Your task to perform on an android device: uninstall "Spotify: Music and Podcasts" Image 0: 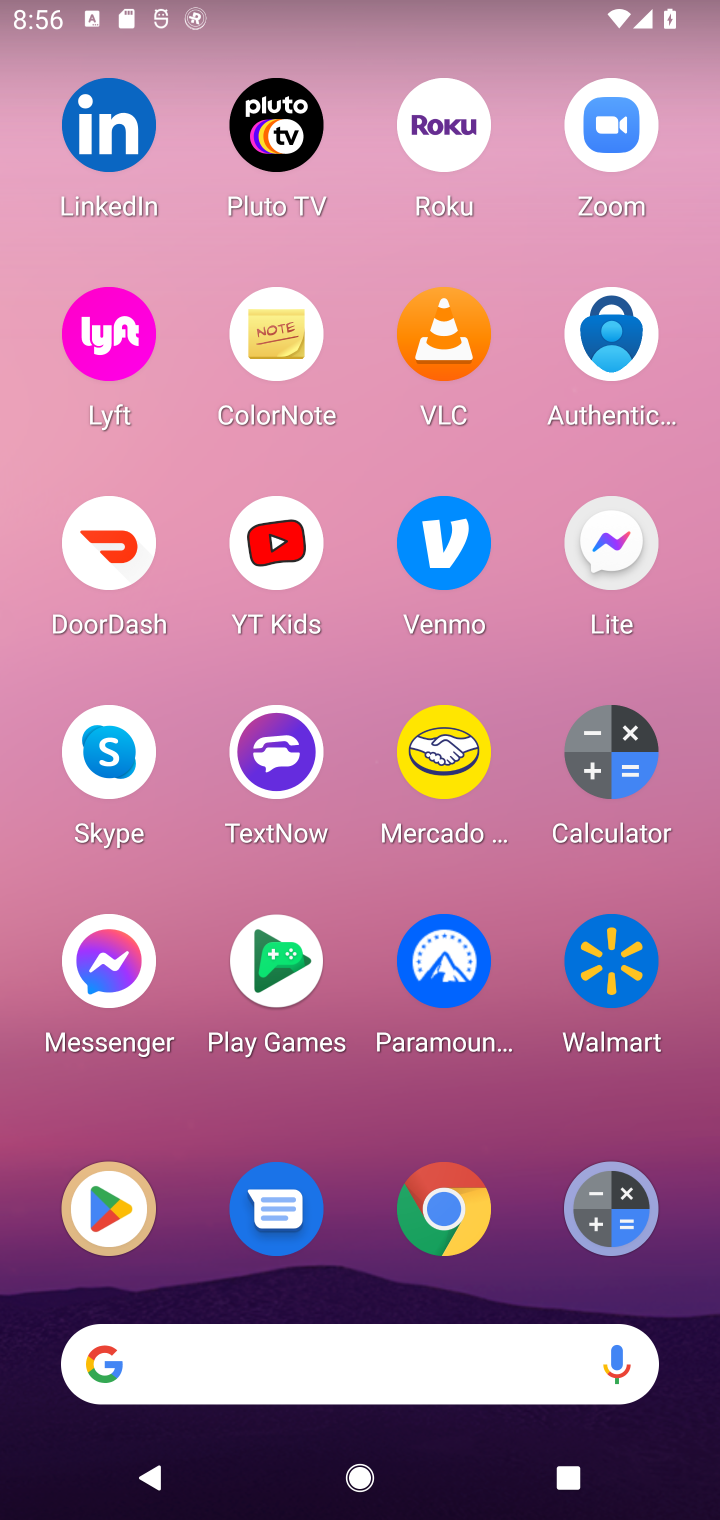
Step 0: press home button
Your task to perform on an android device: uninstall "Spotify: Music and Podcasts" Image 1: 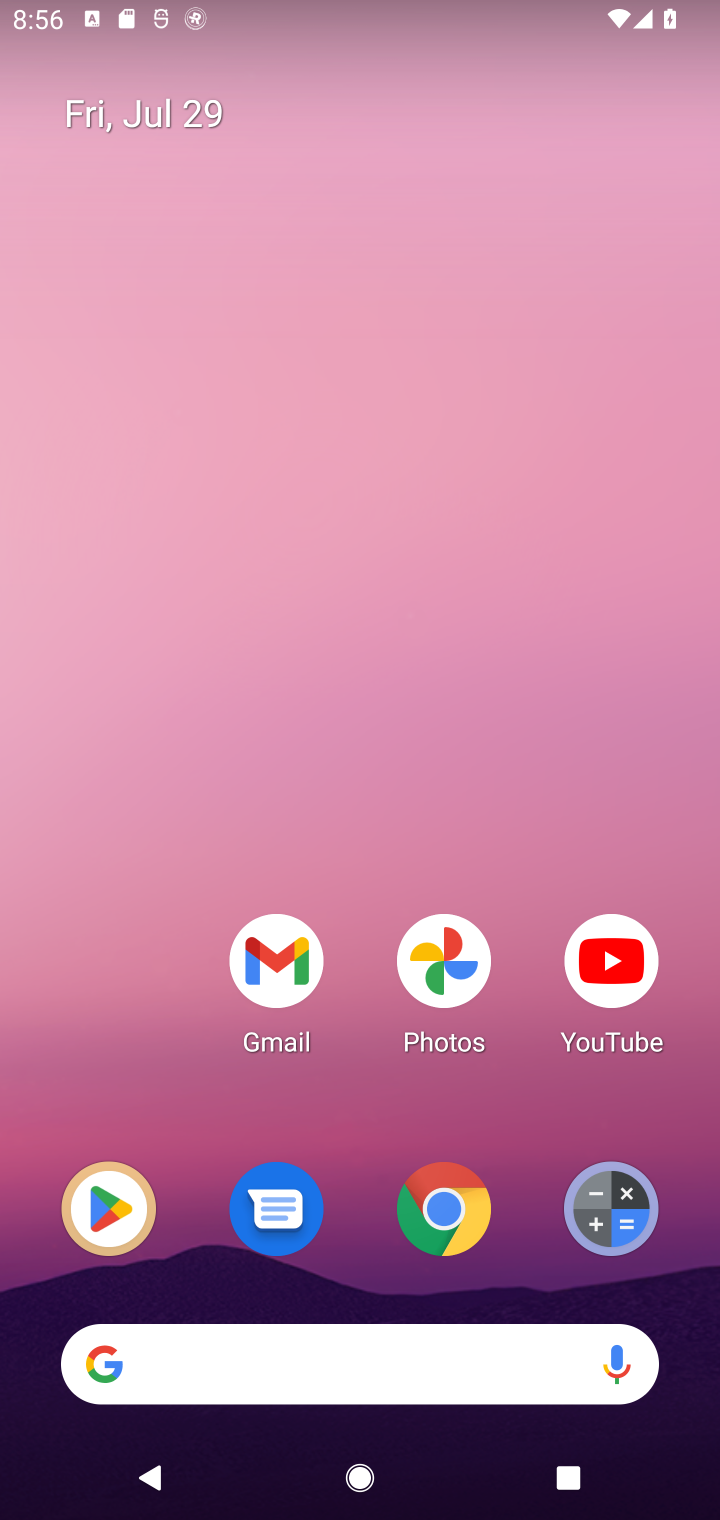
Step 1: drag from (598, 842) to (56, 797)
Your task to perform on an android device: uninstall "Spotify: Music and Podcasts" Image 2: 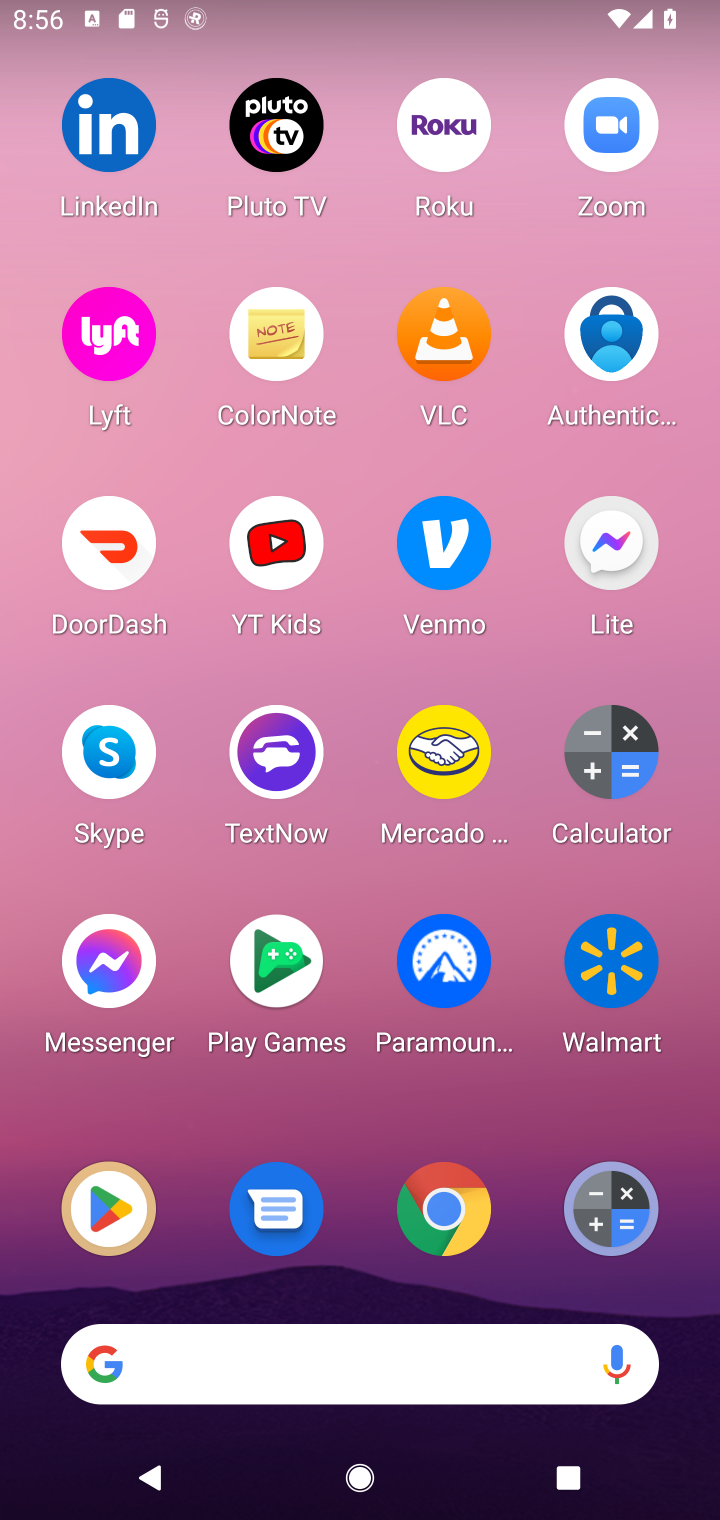
Step 2: drag from (662, 966) to (684, 7)
Your task to perform on an android device: uninstall "Spotify: Music and Podcasts" Image 3: 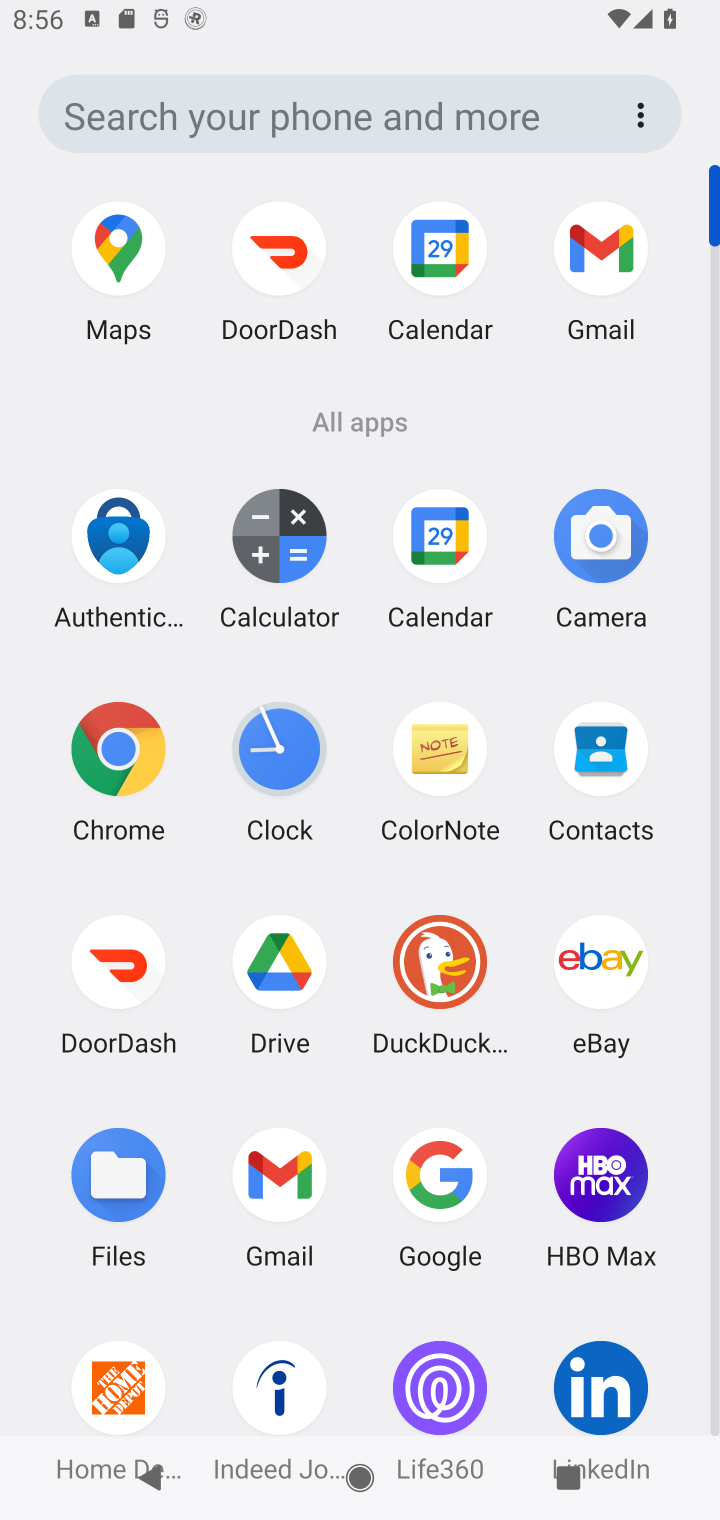
Step 3: drag from (708, 1222) to (719, 822)
Your task to perform on an android device: uninstall "Spotify: Music and Podcasts" Image 4: 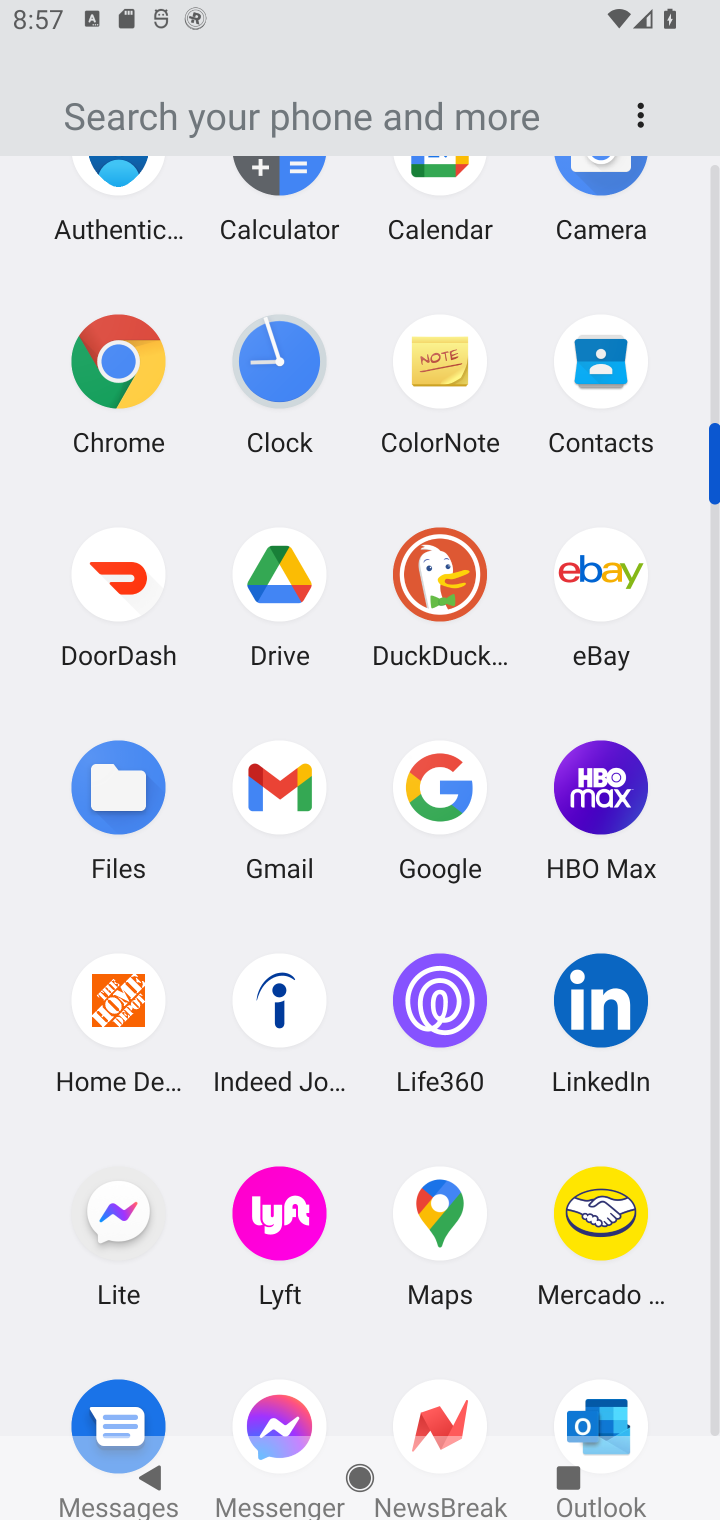
Step 4: drag from (711, 1245) to (719, 1035)
Your task to perform on an android device: uninstall "Spotify: Music and Podcasts" Image 5: 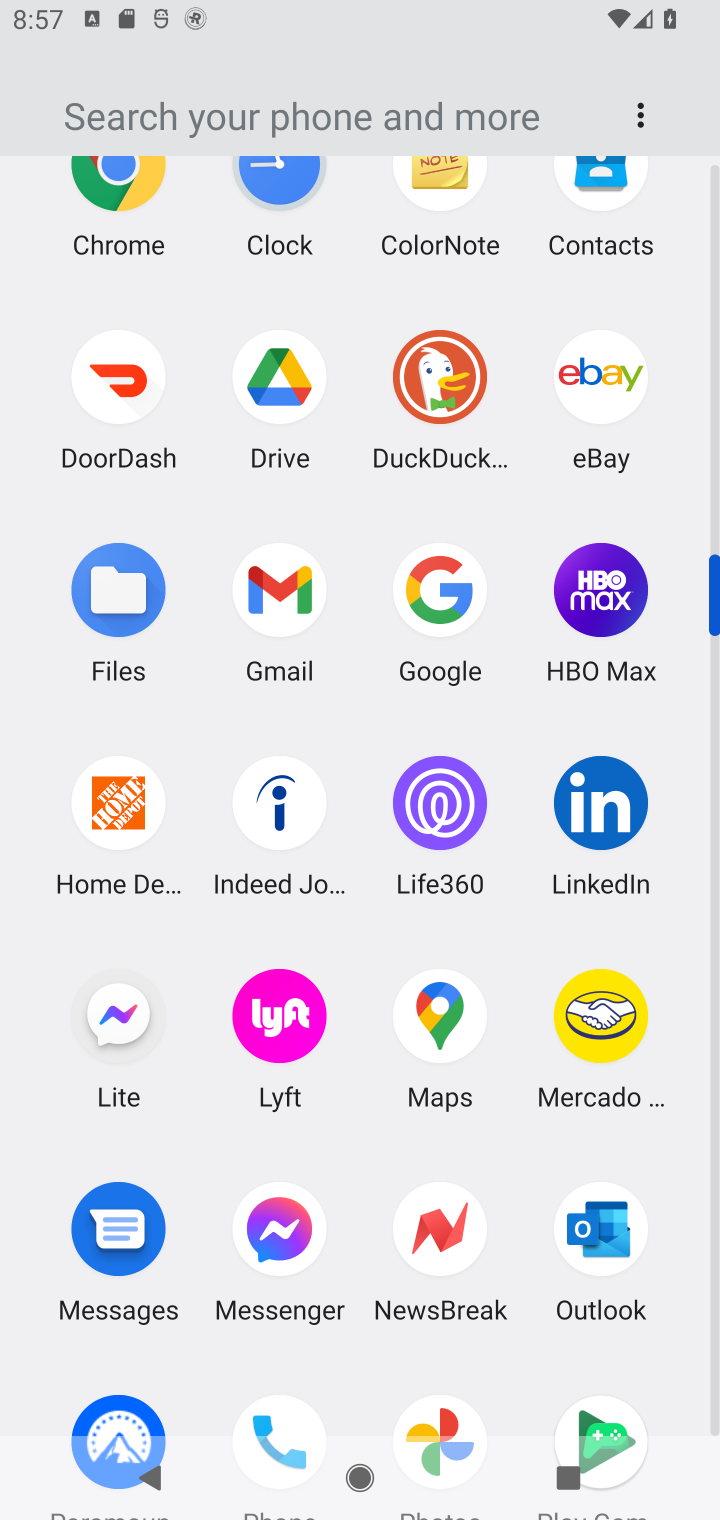
Step 5: drag from (717, 1238) to (715, 886)
Your task to perform on an android device: uninstall "Spotify: Music and Podcasts" Image 6: 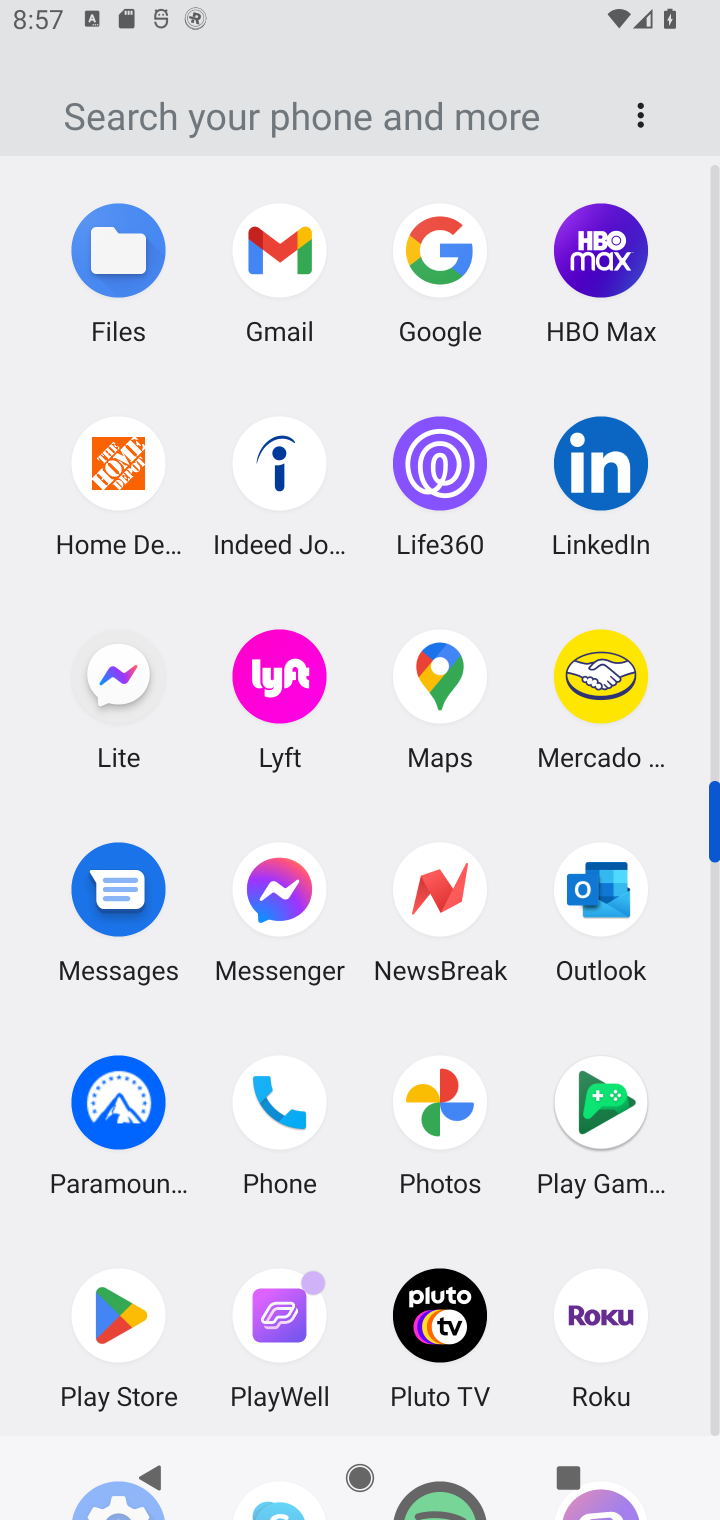
Step 6: drag from (709, 1239) to (699, 723)
Your task to perform on an android device: uninstall "Spotify: Music and Podcasts" Image 7: 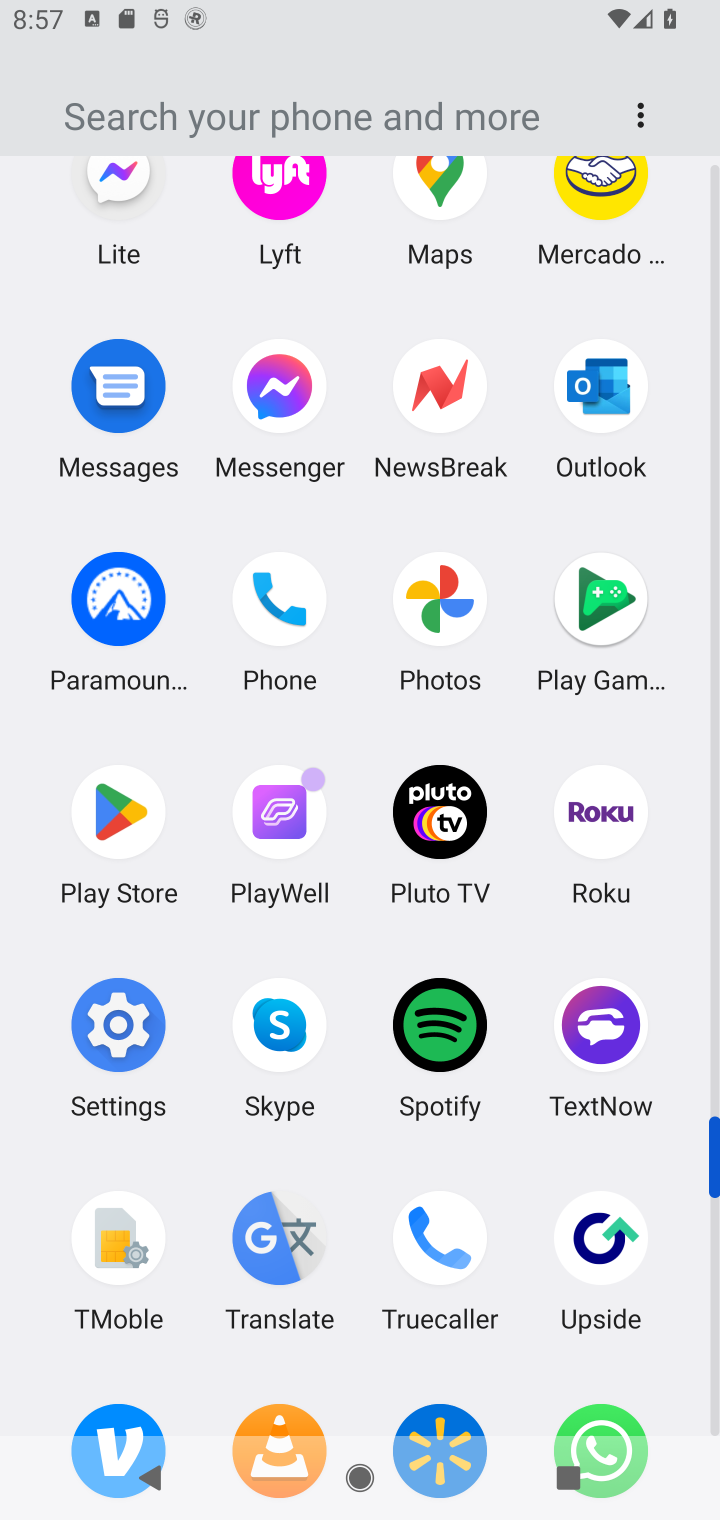
Step 7: click (432, 1036)
Your task to perform on an android device: uninstall "Spotify: Music and Podcasts" Image 8: 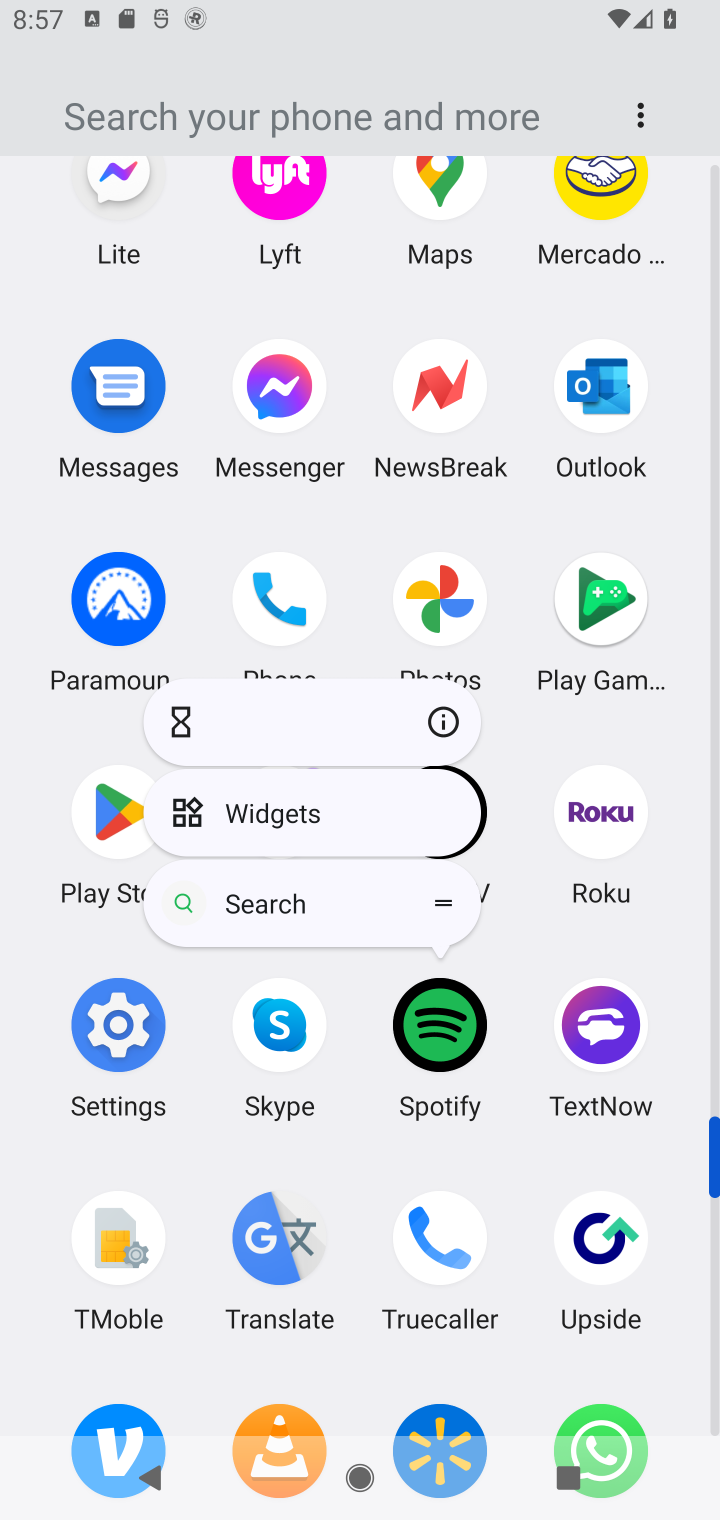
Step 8: click (440, 713)
Your task to perform on an android device: uninstall "Spotify: Music and Podcasts" Image 9: 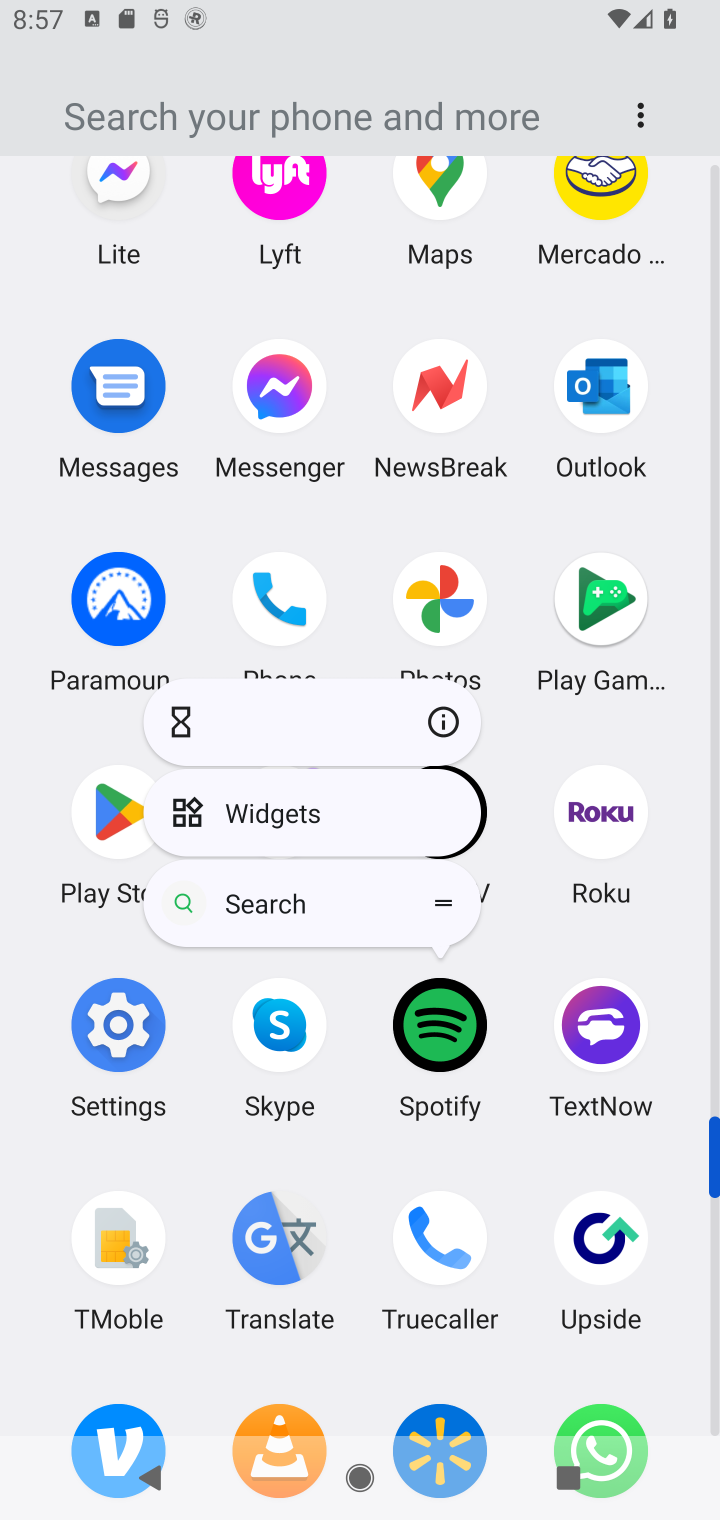
Step 9: click (438, 720)
Your task to perform on an android device: uninstall "Spotify: Music and Podcasts" Image 10: 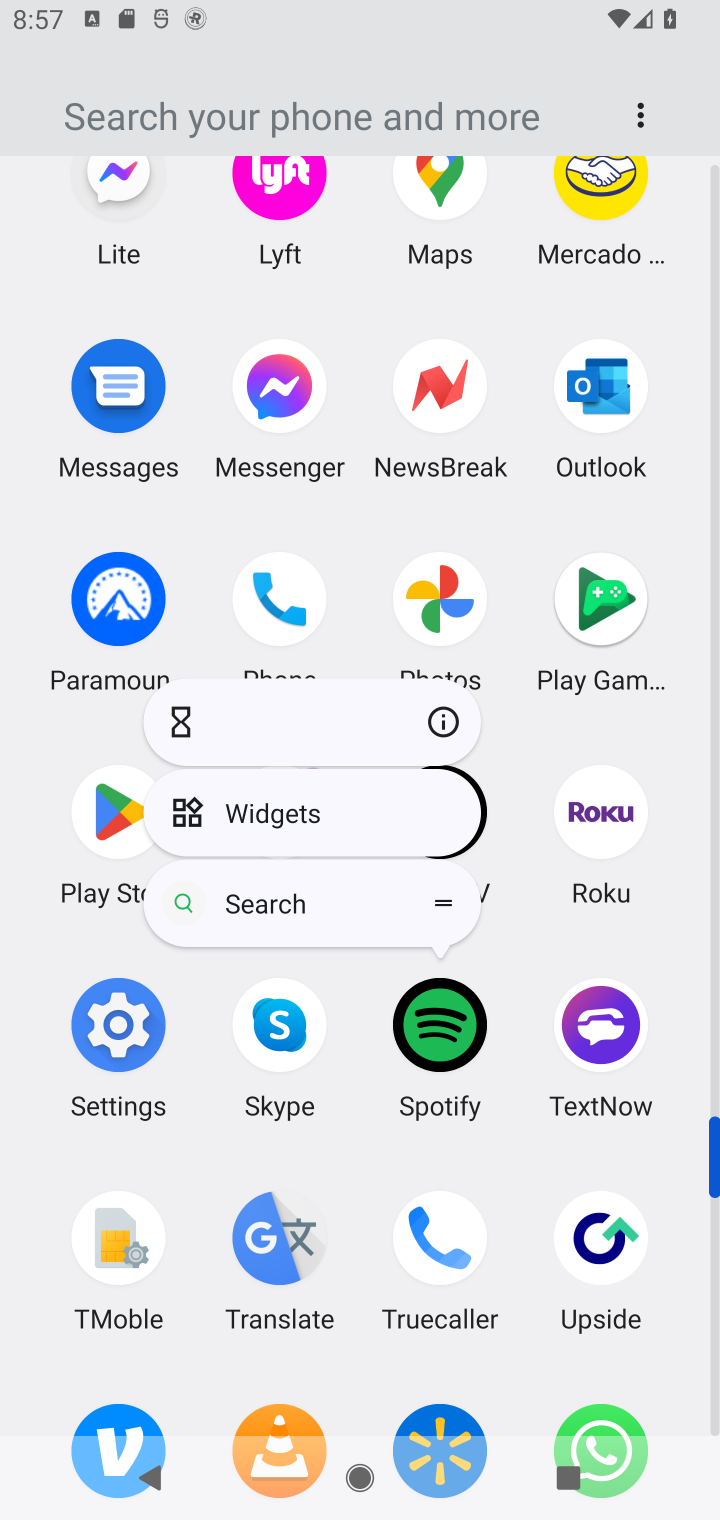
Step 10: click (454, 716)
Your task to perform on an android device: uninstall "Spotify: Music and Podcasts" Image 11: 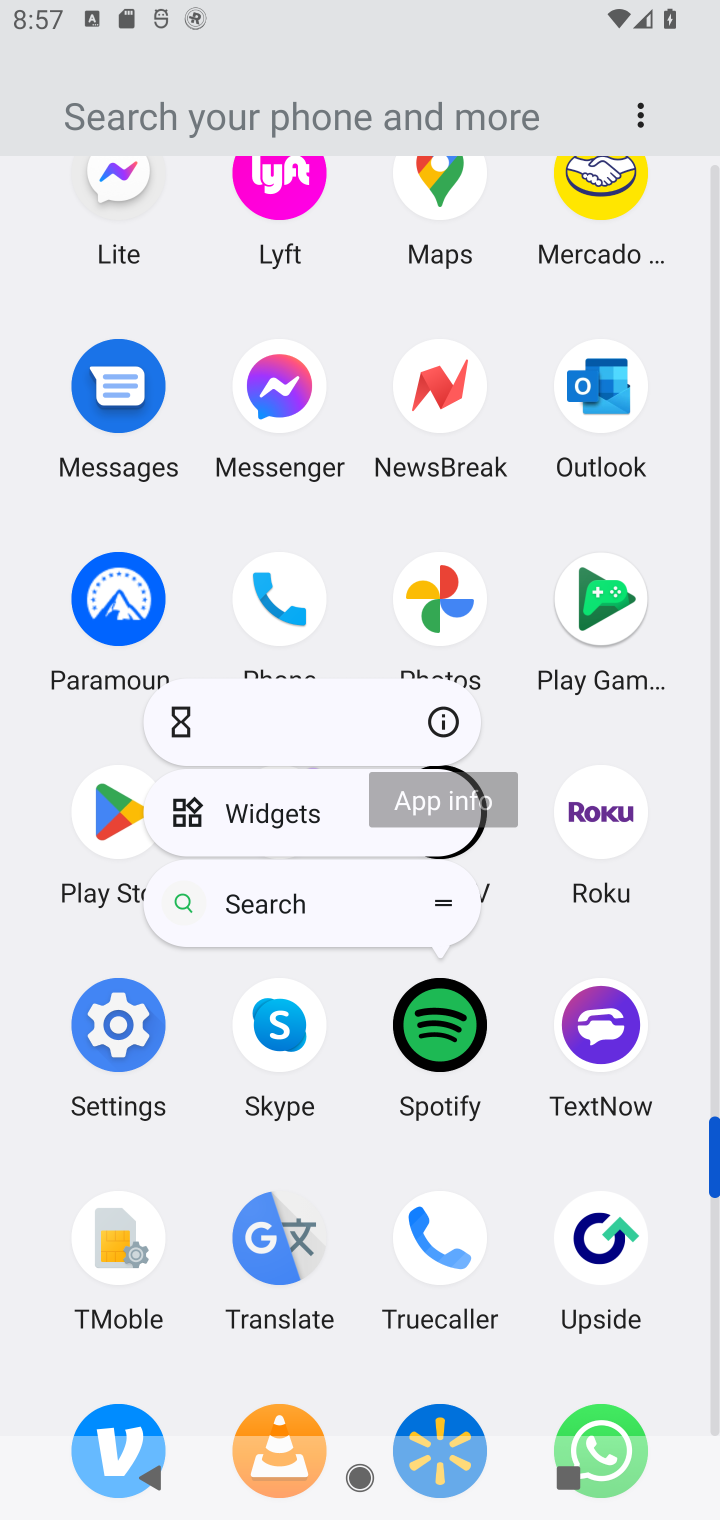
Step 11: click (440, 727)
Your task to perform on an android device: uninstall "Spotify: Music and Podcasts" Image 12: 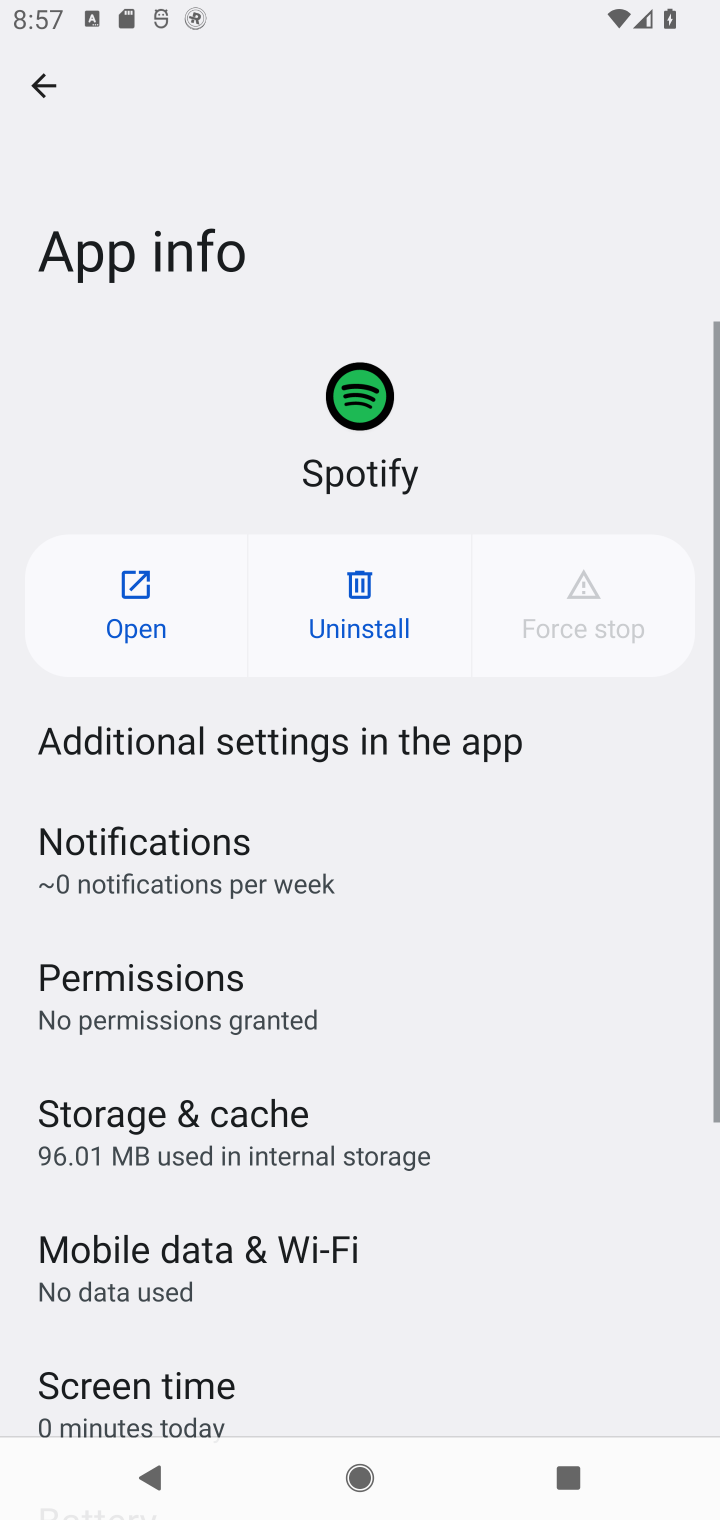
Step 12: click (367, 622)
Your task to perform on an android device: uninstall "Spotify: Music and Podcasts" Image 13: 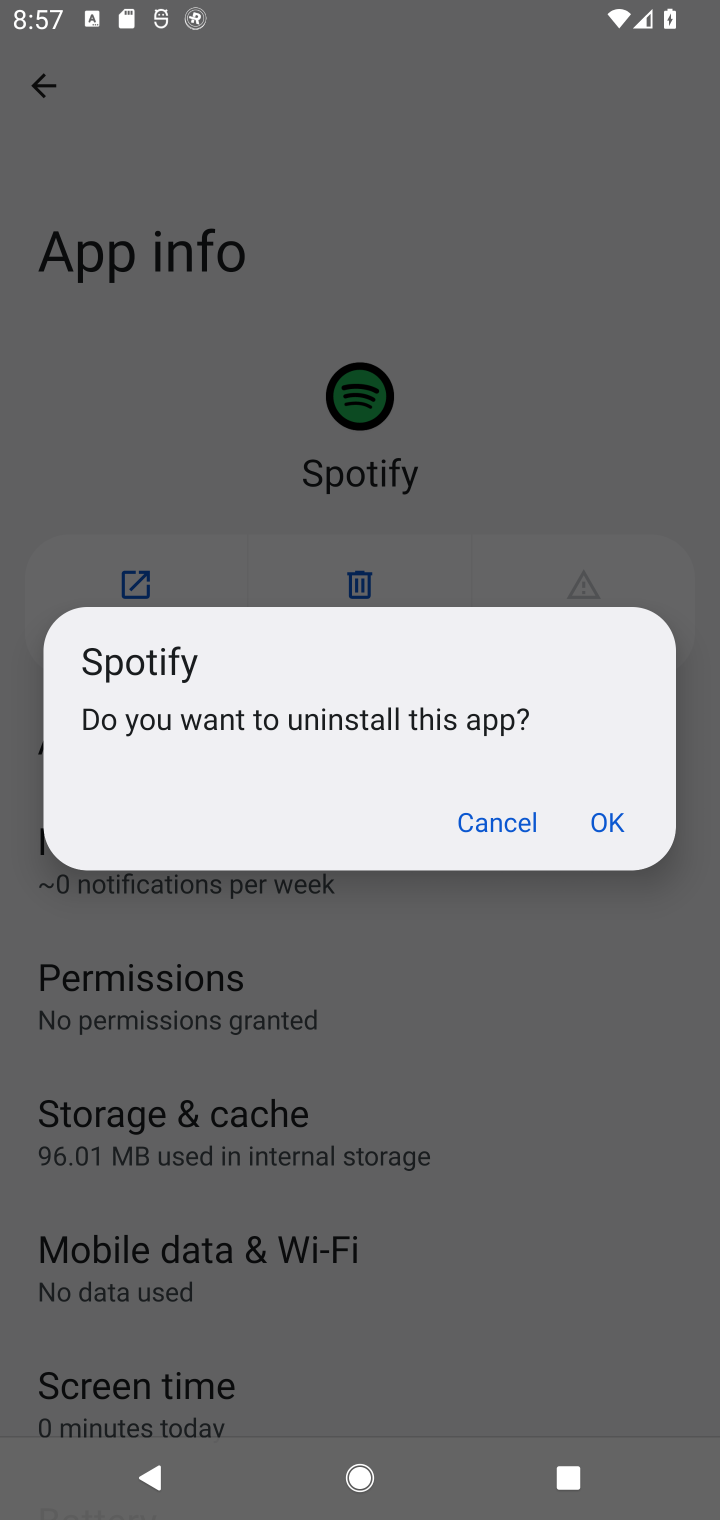
Step 13: click (594, 817)
Your task to perform on an android device: uninstall "Spotify: Music and Podcasts" Image 14: 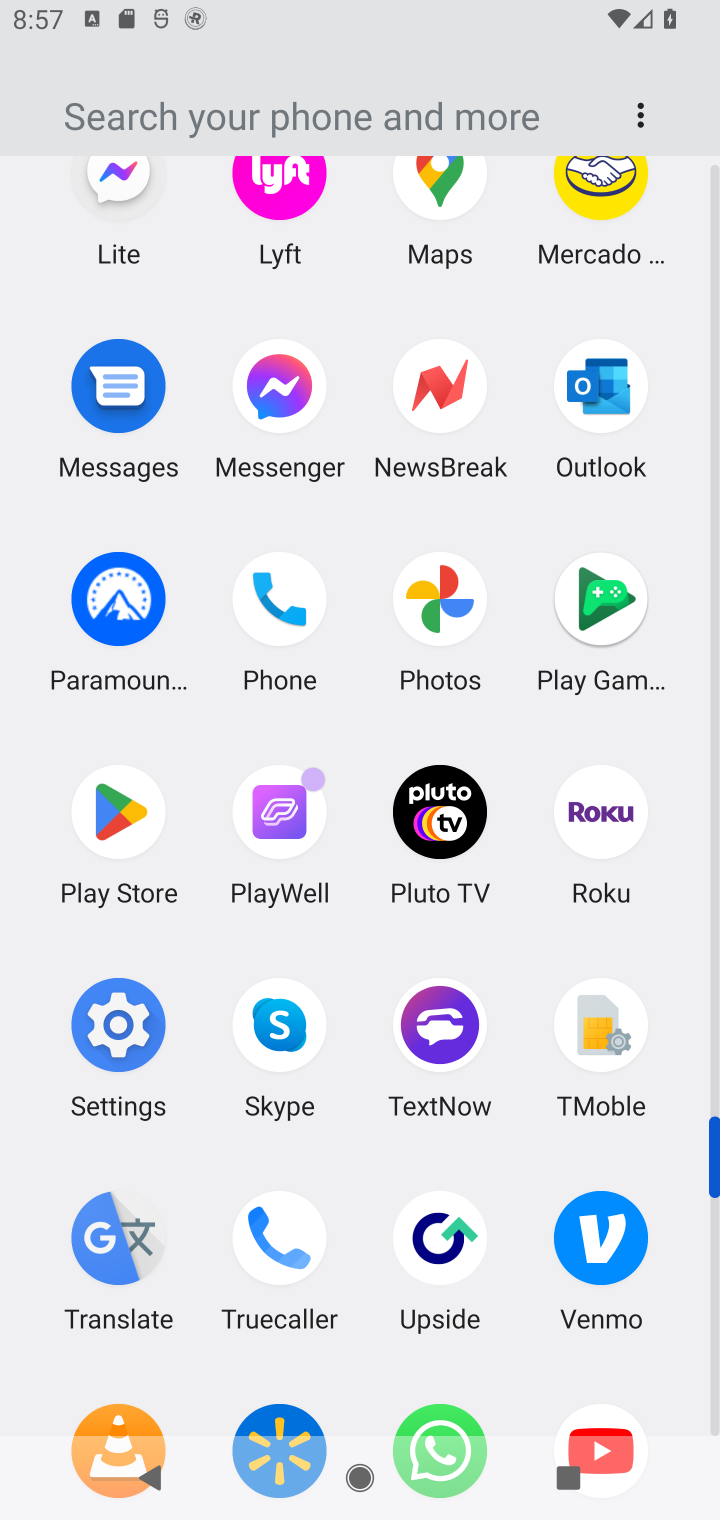
Step 14: task complete